Your task to perform on an android device: move an email to a new category in the gmail app Image 0: 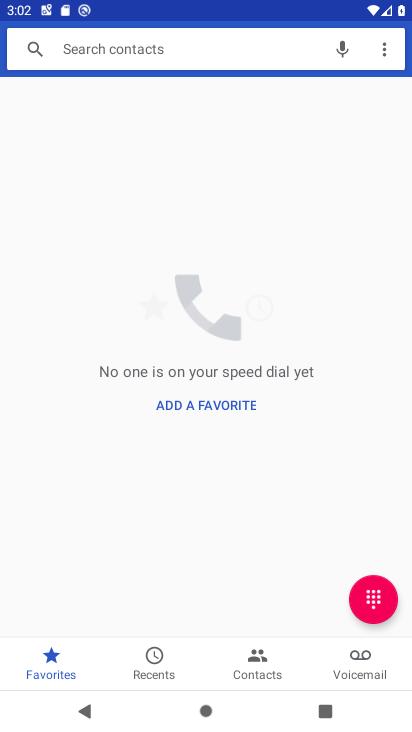
Step 0: press home button
Your task to perform on an android device: move an email to a new category in the gmail app Image 1: 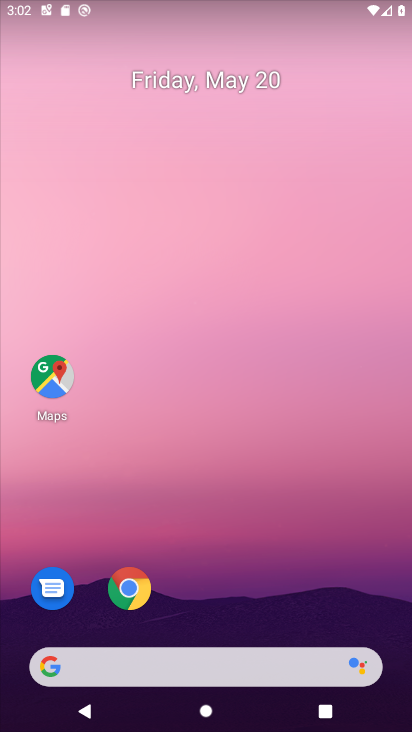
Step 1: drag from (259, 580) to (266, 156)
Your task to perform on an android device: move an email to a new category in the gmail app Image 2: 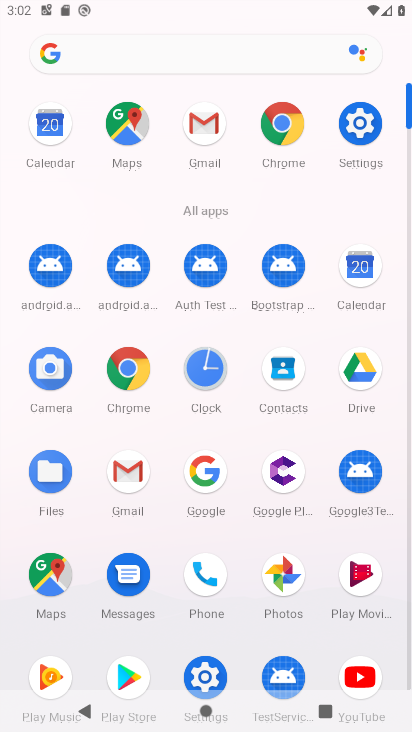
Step 2: click (194, 139)
Your task to perform on an android device: move an email to a new category in the gmail app Image 3: 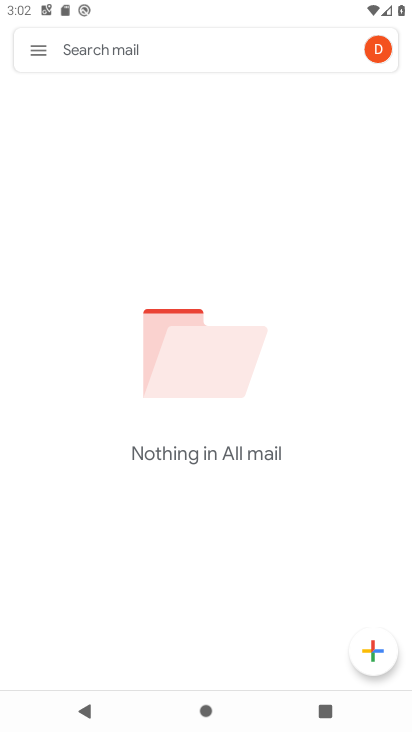
Step 3: click (28, 52)
Your task to perform on an android device: move an email to a new category in the gmail app Image 4: 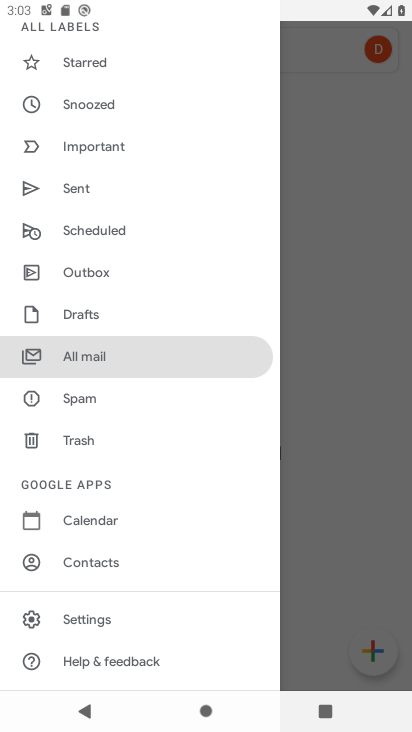
Step 4: click (96, 349)
Your task to perform on an android device: move an email to a new category in the gmail app Image 5: 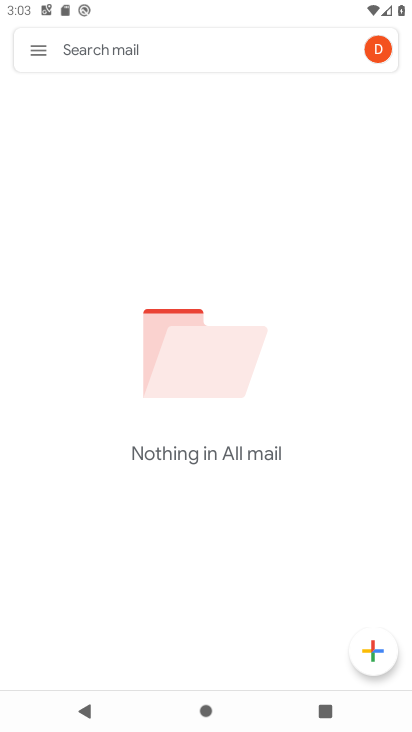
Step 5: task complete